Your task to perform on an android device: Go to location settings Image 0: 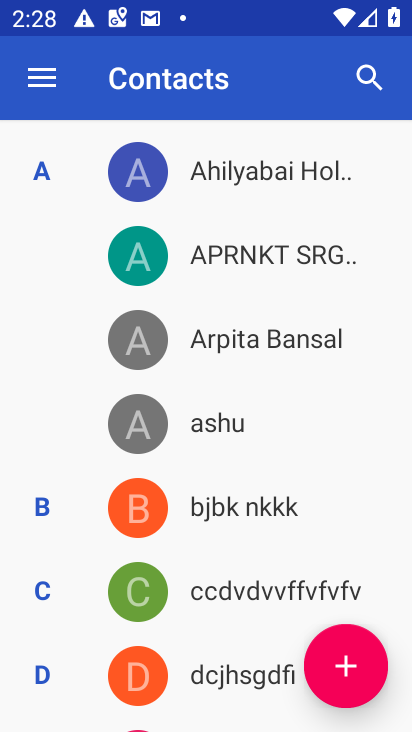
Step 0: press home button
Your task to perform on an android device: Go to location settings Image 1: 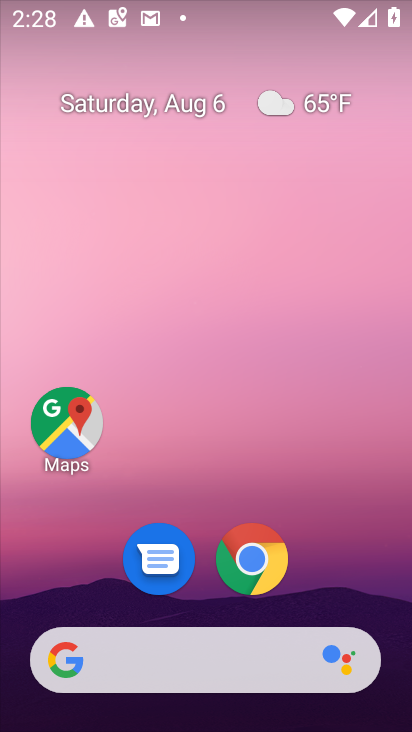
Step 1: drag from (211, 470) to (212, 199)
Your task to perform on an android device: Go to location settings Image 2: 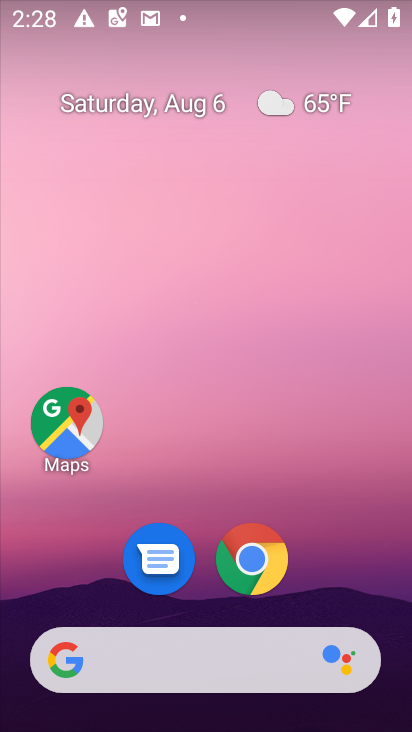
Step 2: drag from (207, 488) to (207, 173)
Your task to perform on an android device: Go to location settings Image 3: 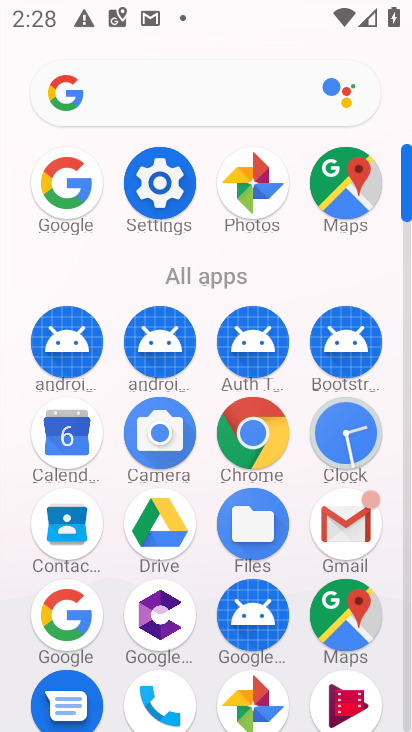
Step 3: click (153, 200)
Your task to perform on an android device: Go to location settings Image 4: 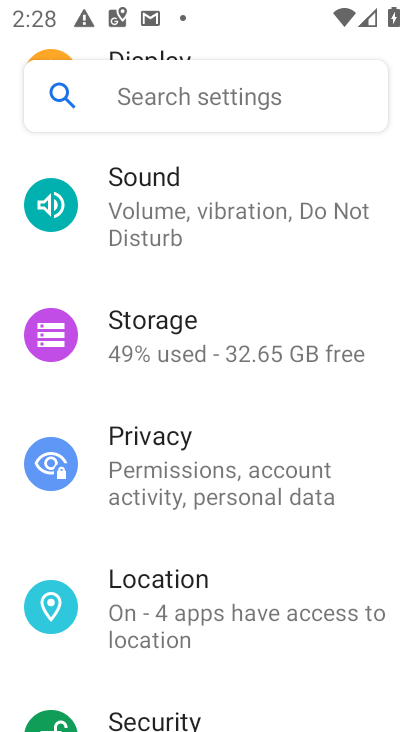
Step 4: click (195, 569)
Your task to perform on an android device: Go to location settings Image 5: 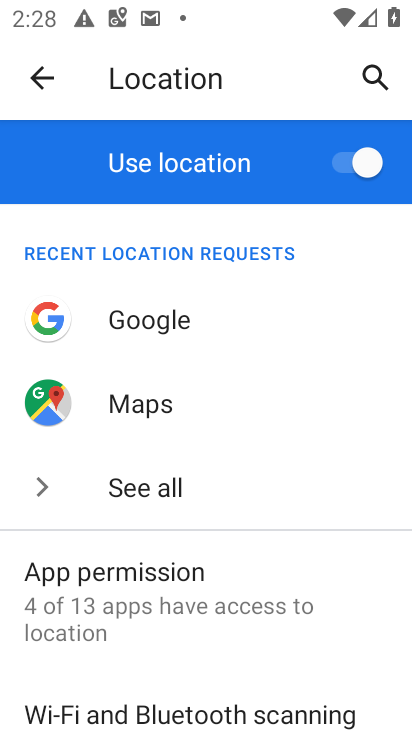
Step 5: task complete